Your task to perform on an android device: Add "razer naga" to the cart on walmart Image 0: 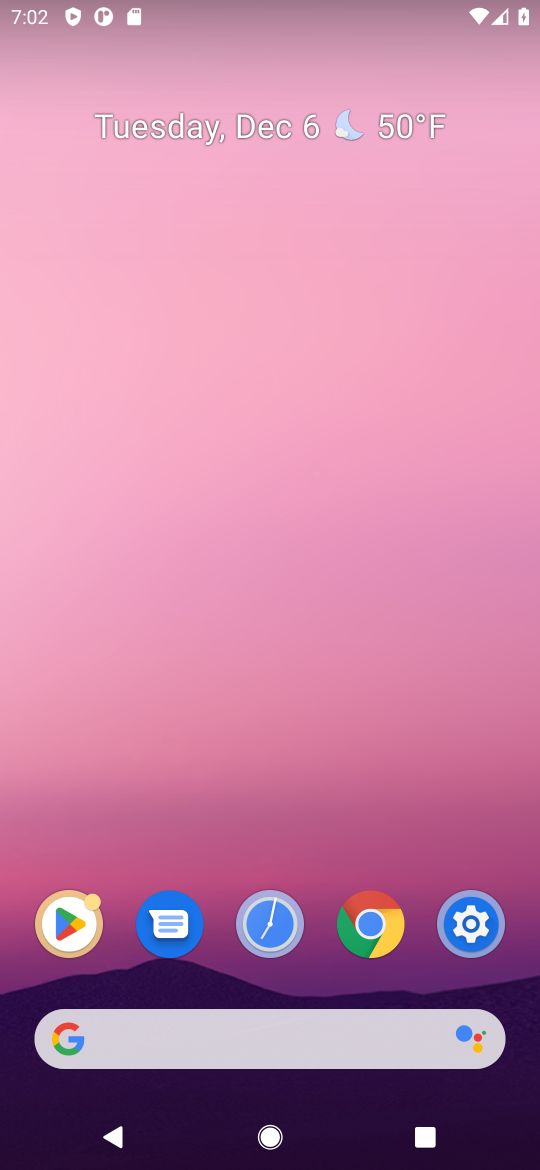
Step 0: click (163, 1041)
Your task to perform on an android device: Add "razer naga" to the cart on walmart Image 1: 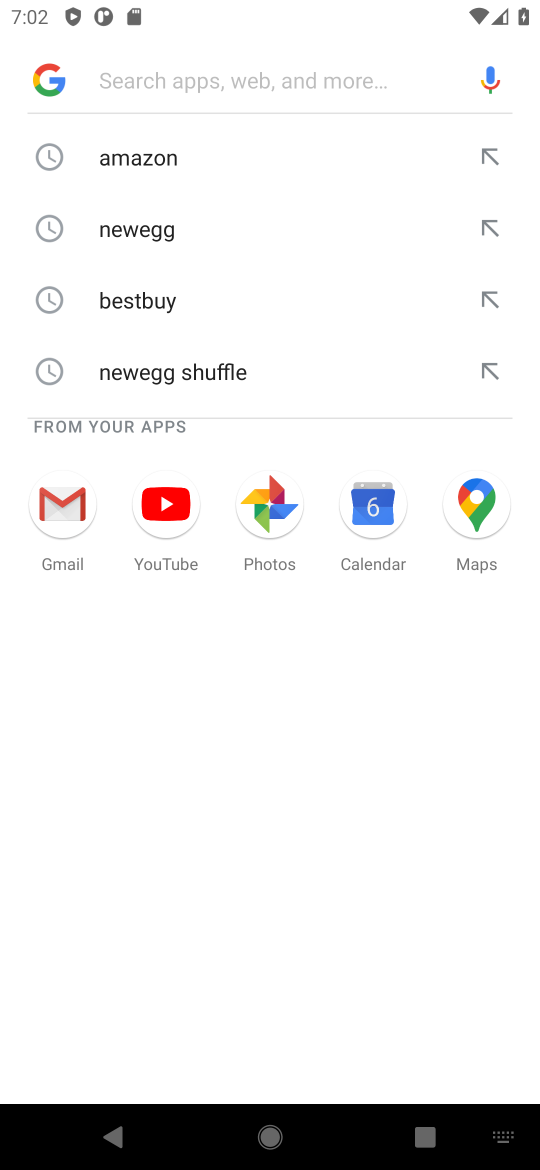
Step 1: type "walmart"
Your task to perform on an android device: Add "razer naga" to the cart on walmart Image 2: 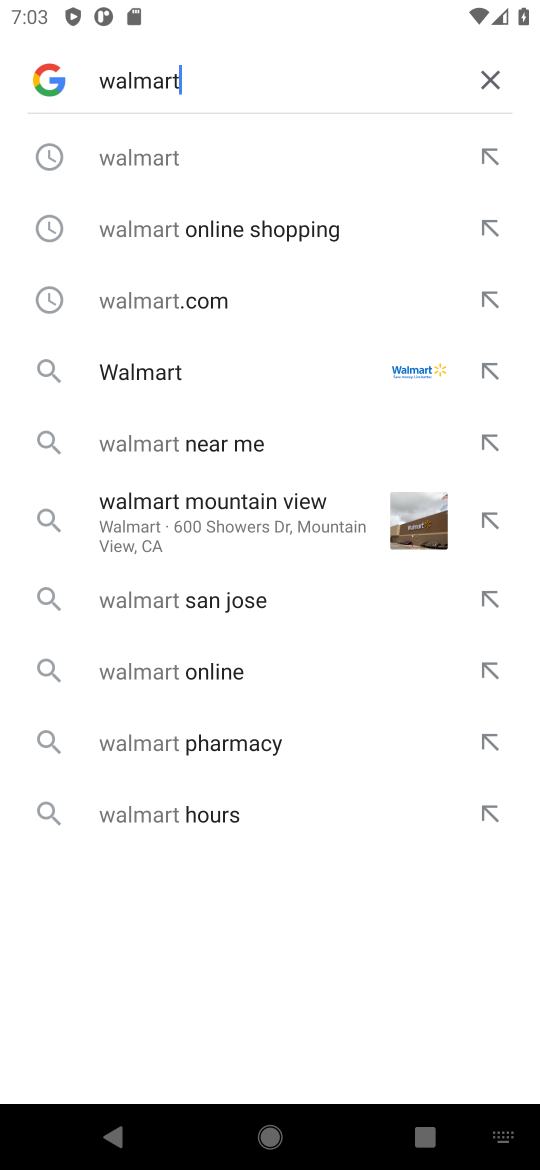
Step 2: click (121, 179)
Your task to perform on an android device: Add "razer naga" to the cart on walmart Image 3: 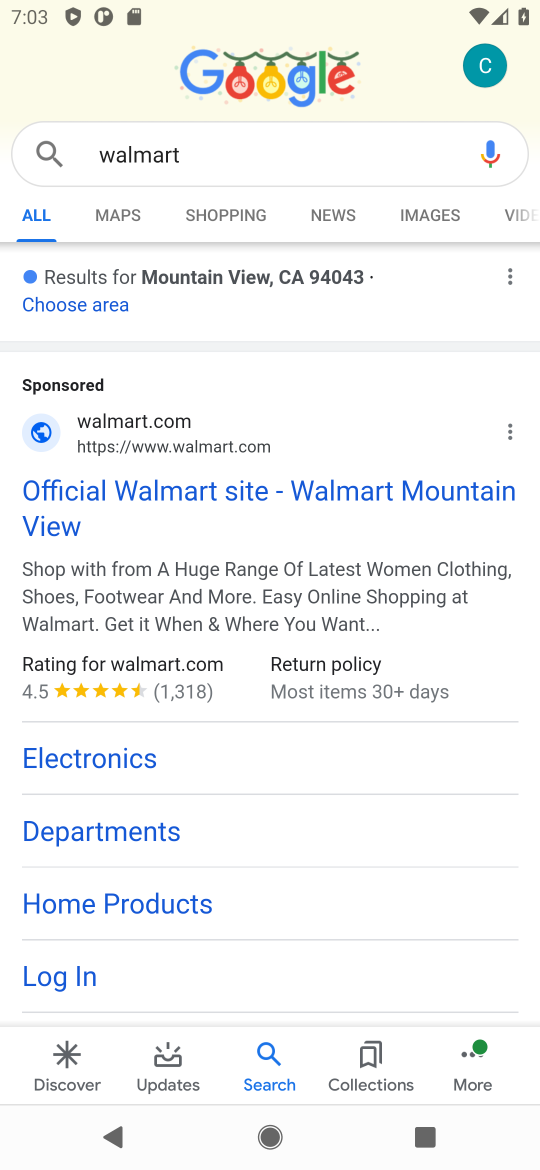
Step 3: click (227, 504)
Your task to perform on an android device: Add "razer naga" to the cart on walmart Image 4: 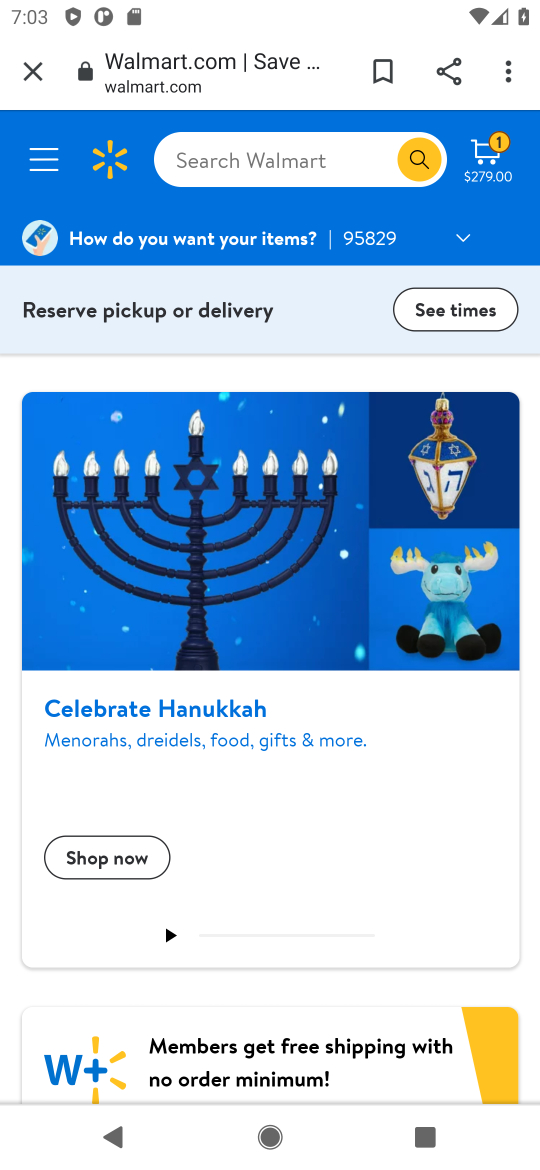
Step 4: click (181, 170)
Your task to perform on an android device: Add "razer naga" to the cart on walmart Image 5: 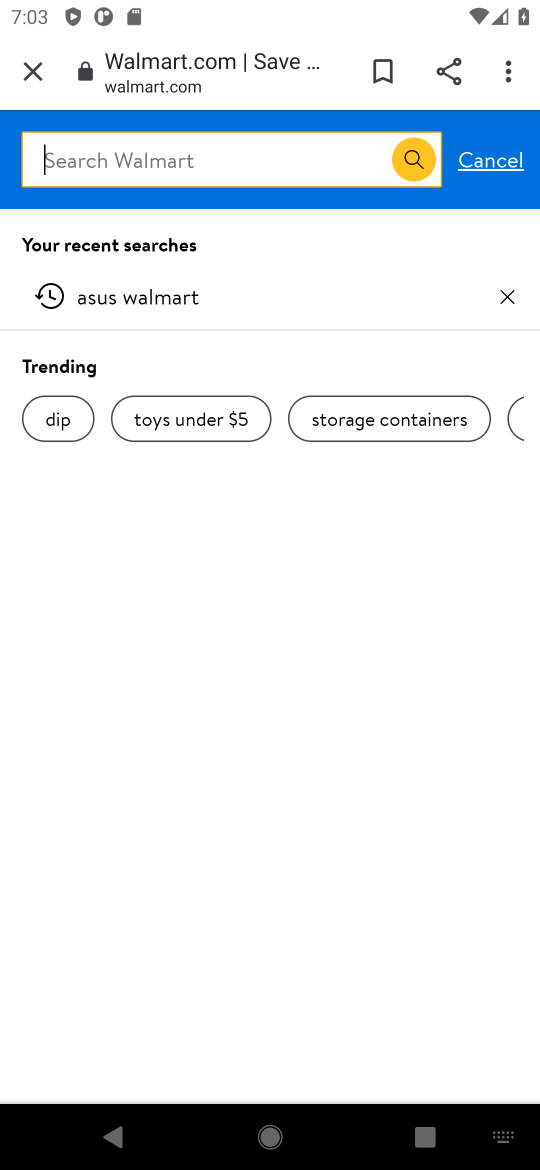
Step 5: type "razer naga"
Your task to perform on an android device: Add "razer naga" to the cart on walmart Image 6: 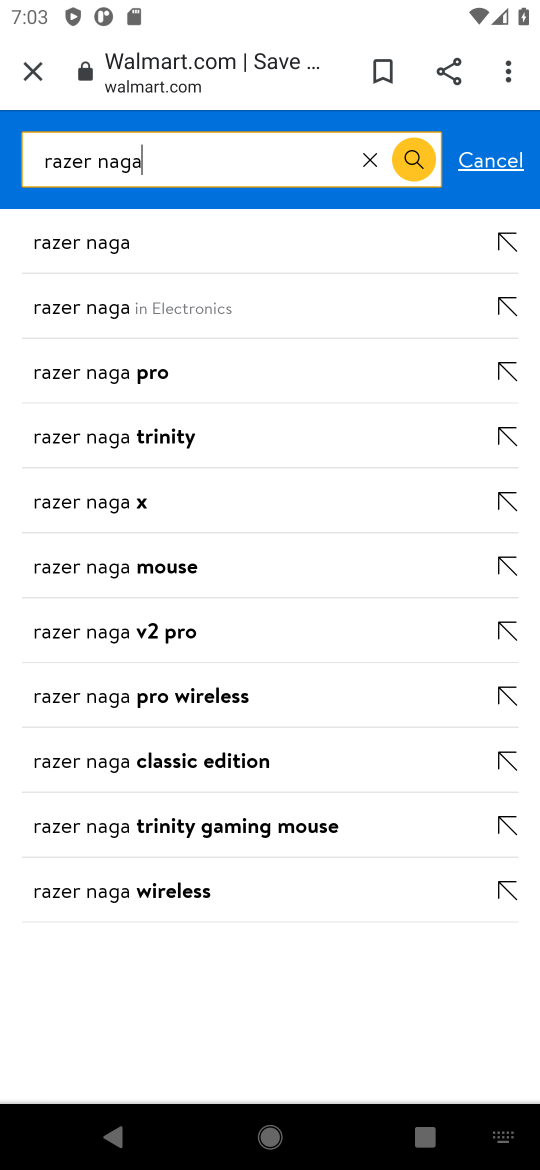
Step 6: click (148, 251)
Your task to perform on an android device: Add "razer naga" to the cart on walmart Image 7: 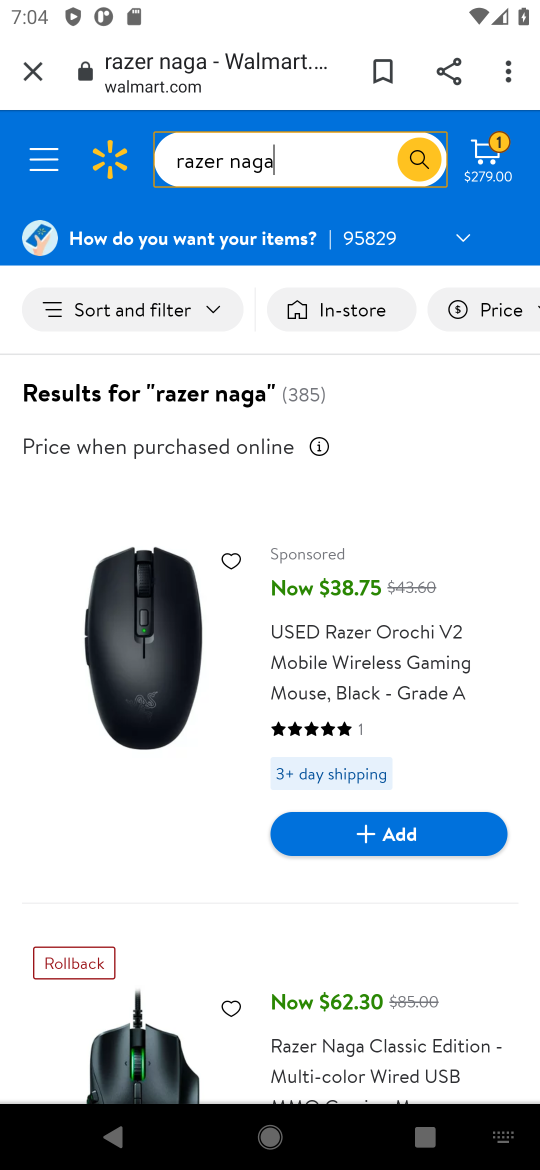
Step 7: click (410, 844)
Your task to perform on an android device: Add "razer naga" to the cart on walmart Image 8: 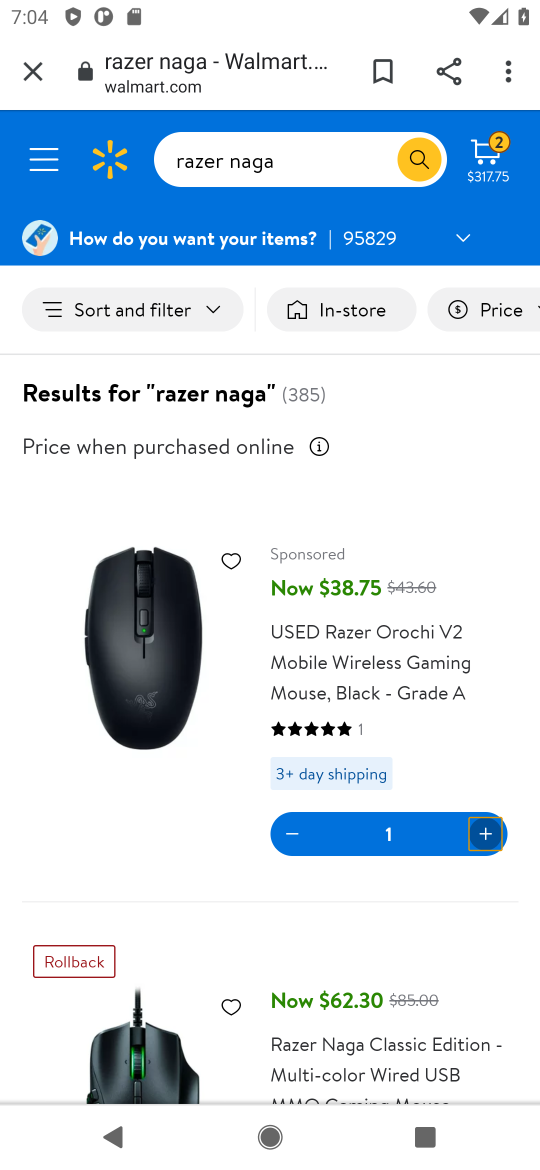
Step 8: task complete